Your task to perform on an android device: turn notification dots off Image 0: 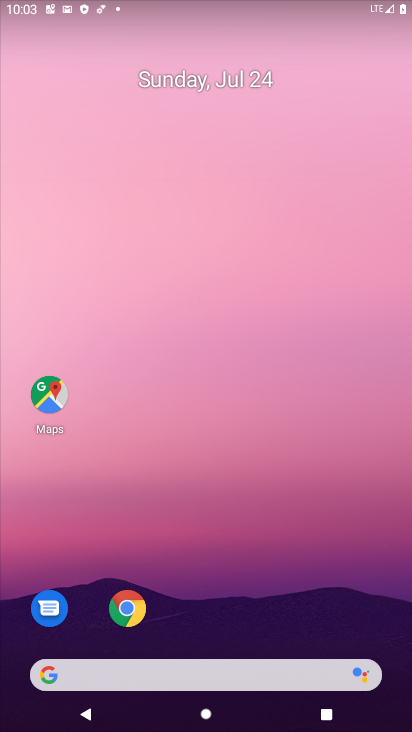
Step 0: press home button
Your task to perform on an android device: turn notification dots off Image 1: 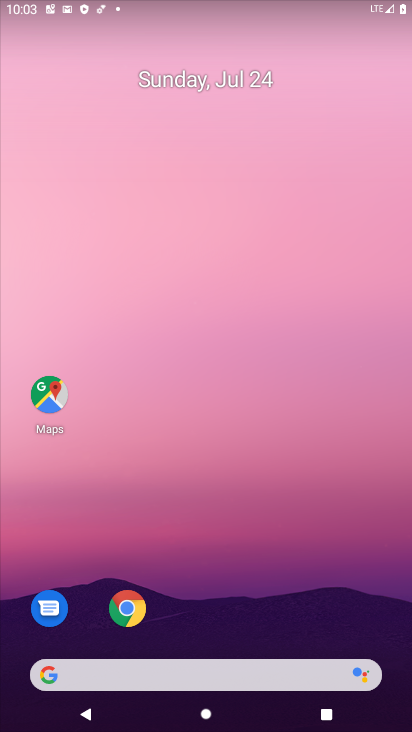
Step 1: drag from (225, 640) to (246, 10)
Your task to perform on an android device: turn notification dots off Image 2: 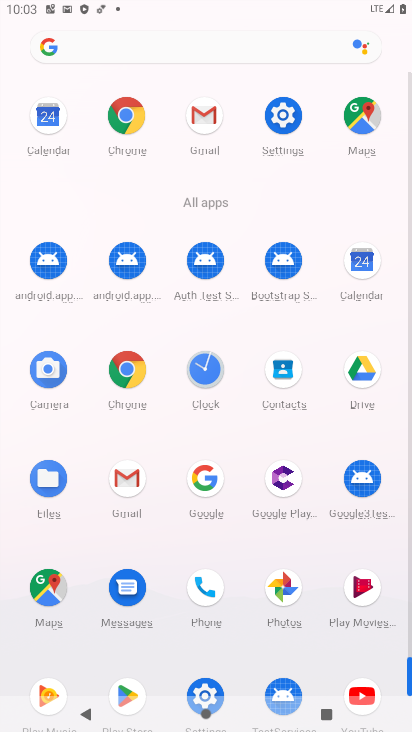
Step 2: click (284, 108)
Your task to perform on an android device: turn notification dots off Image 3: 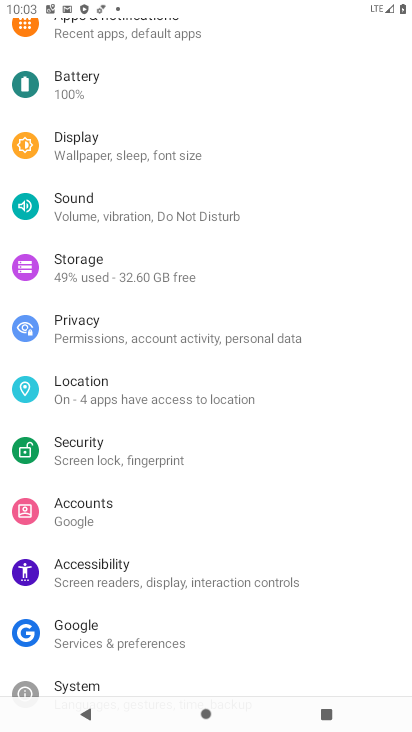
Step 3: click (163, 36)
Your task to perform on an android device: turn notification dots off Image 4: 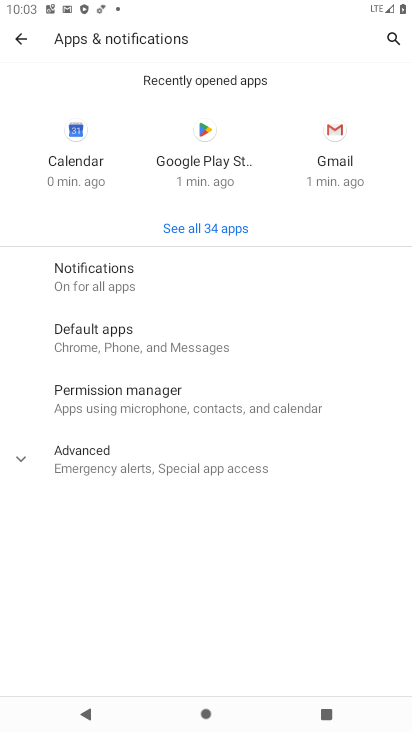
Step 4: click (156, 275)
Your task to perform on an android device: turn notification dots off Image 5: 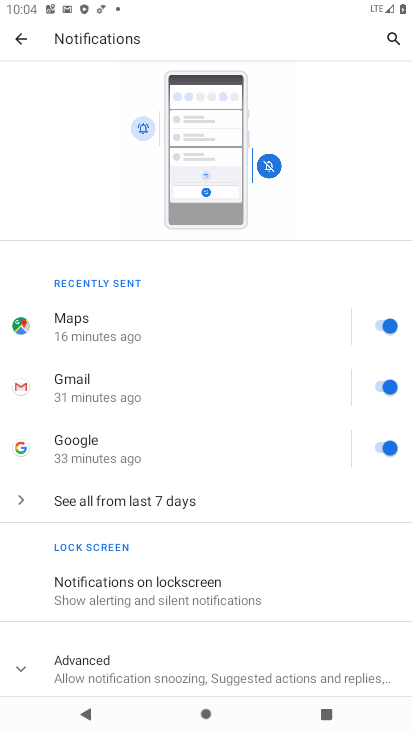
Step 5: click (23, 663)
Your task to perform on an android device: turn notification dots off Image 6: 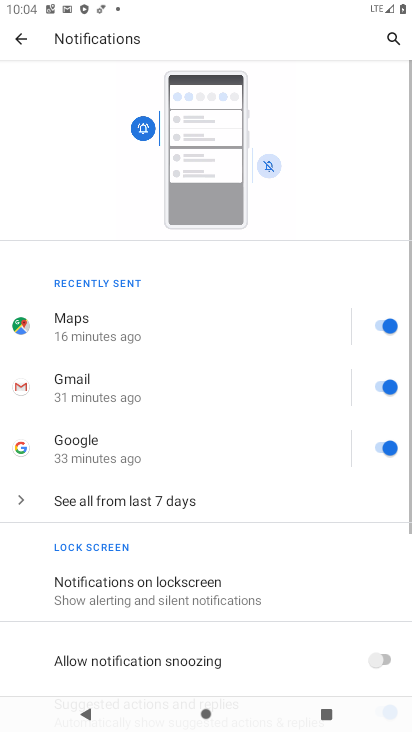
Step 6: task complete